Your task to perform on an android device: open chrome privacy settings Image 0: 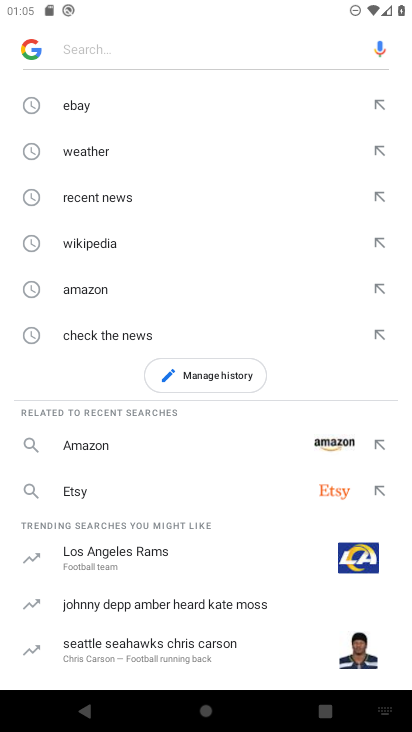
Step 0: press home button
Your task to perform on an android device: open chrome privacy settings Image 1: 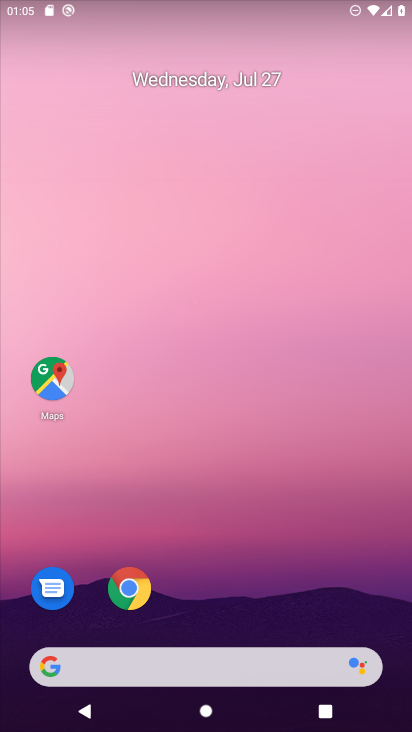
Step 1: click (116, 604)
Your task to perform on an android device: open chrome privacy settings Image 2: 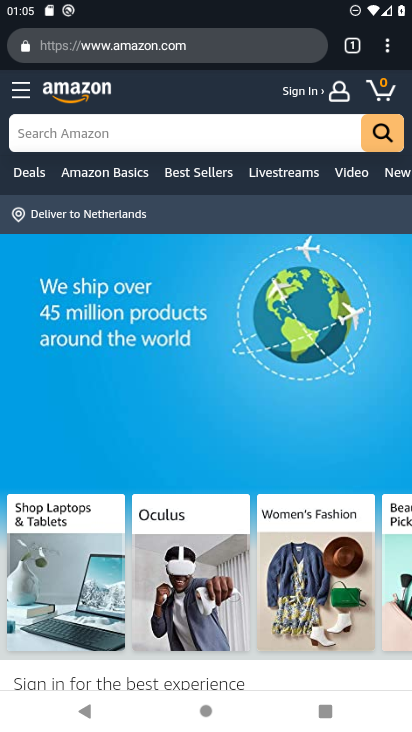
Step 2: click (388, 40)
Your task to perform on an android device: open chrome privacy settings Image 3: 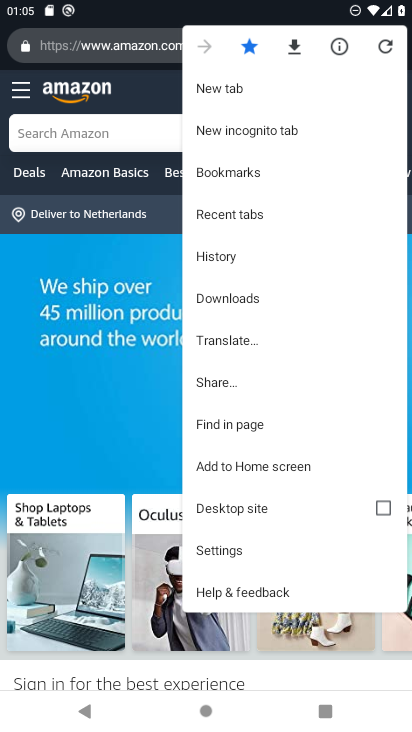
Step 3: click (214, 551)
Your task to perform on an android device: open chrome privacy settings Image 4: 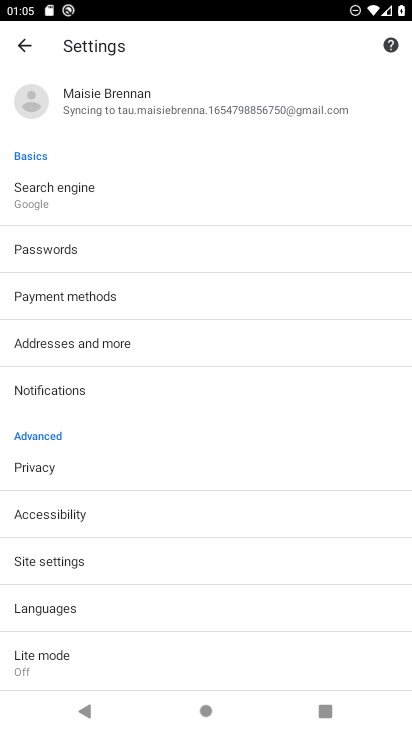
Step 4: click (42, 467)
Your task to perform on an android device: open chrome privacy settings Image 5: 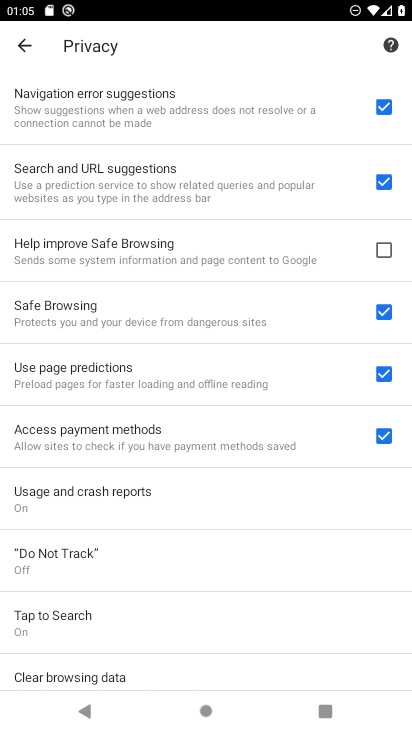
Step 5: task complete